Your task to perform on an android device: set default search engine in the chrome app Image 0: 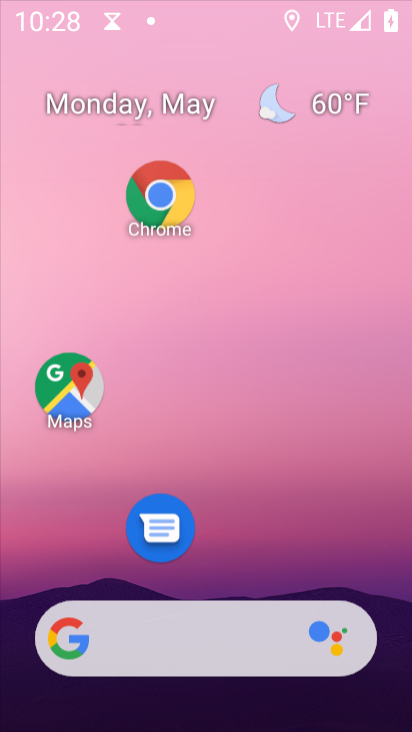
Step 0: drag from (182, 22) to (409, 15)
Your task to perform on an android device: set default search engine in the chrome app Image 1: 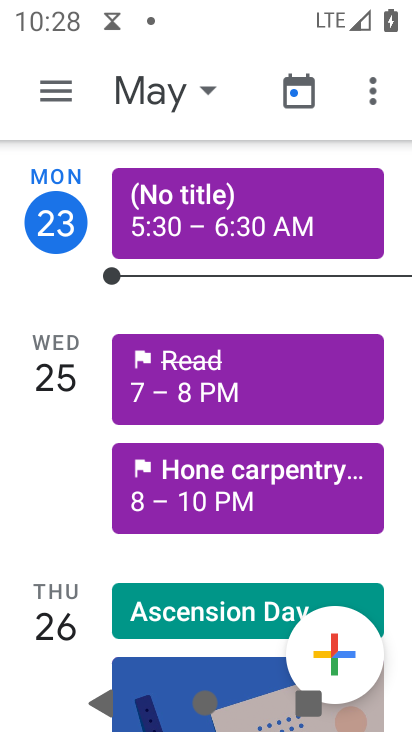
Step 1: press home button
Your task to perform on an android device: set default search engine in the chrome app Image 2: 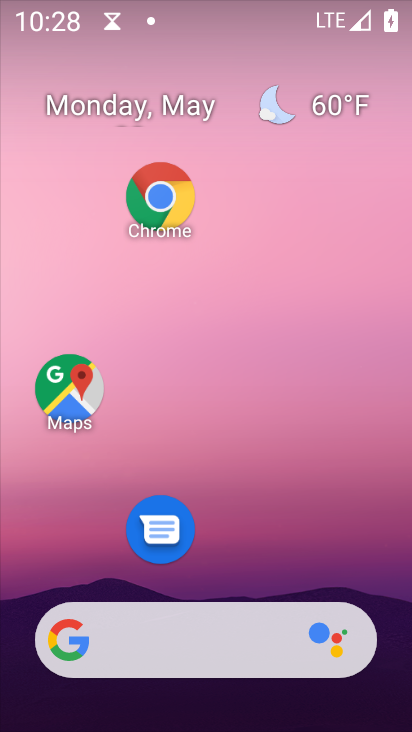
Step 2: drag from (250, 560) to (208, 228)
Your task to perform on an android device: set default search engine in the chrome app Image 3: 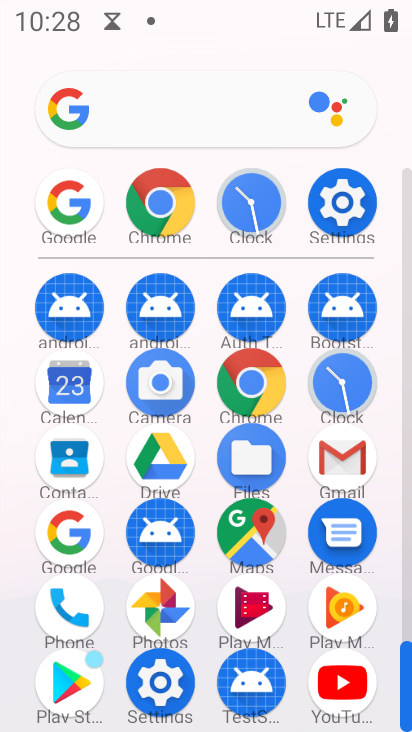
Step 3: click (335, 394)
Your task to perform on an android device: set default search engine in the chrome app Image 4: 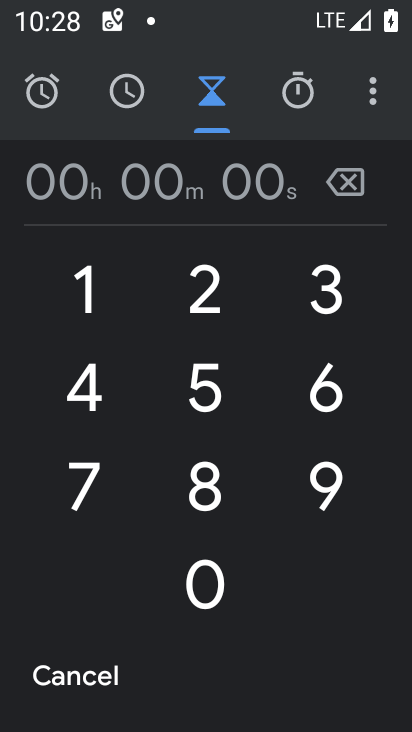
Step 4: click (210, 300)
Your task to perform on an android device: set default search engine in the chrome app Image 5: 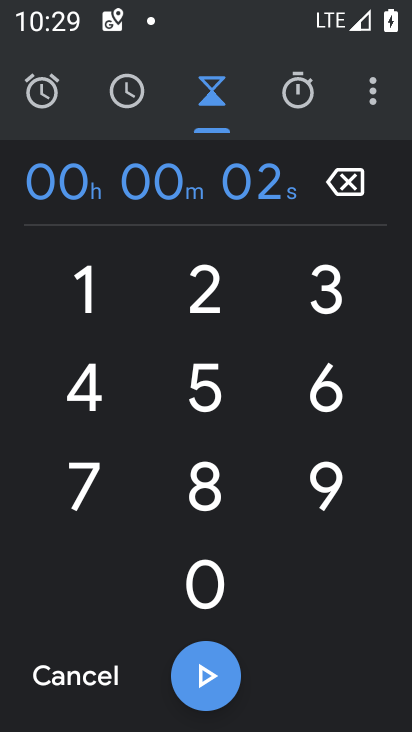
Step 5: click (203, 598)
Your task to perform on an android device: set default search engine in the chrome app Image 6: 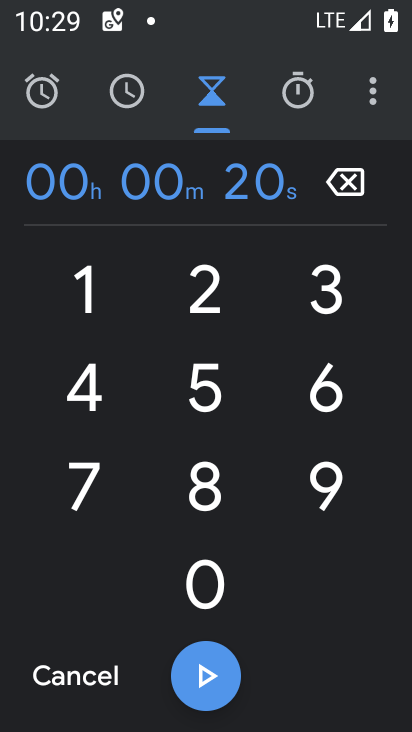
Step 6: click (200, 299)
Your task to perform on an android device: set default search engine in the chrome app Image 7: 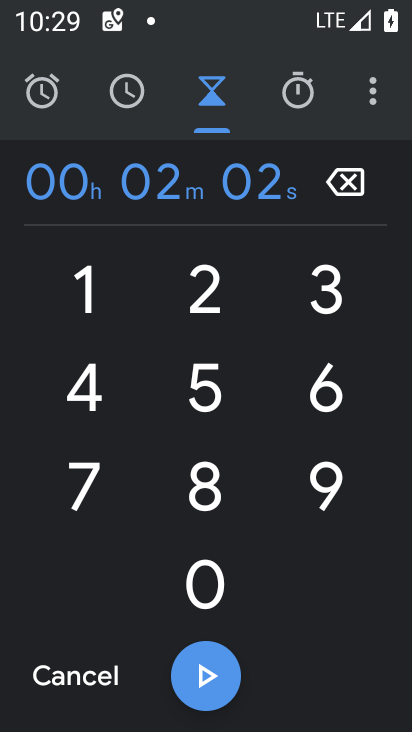
Step 7: click (213, 609)
Your task to perform on an android device: set default search engine in the chrome app Image 8: 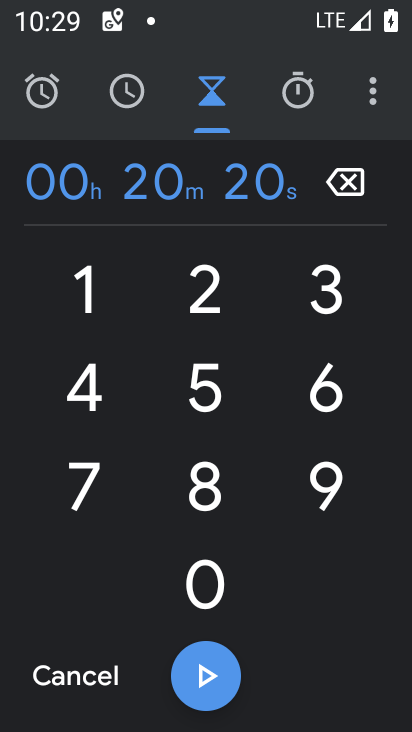
Step 8: click (192, 693)
Your task to perform on an android device: set default search engine in the chrome app Image 9: 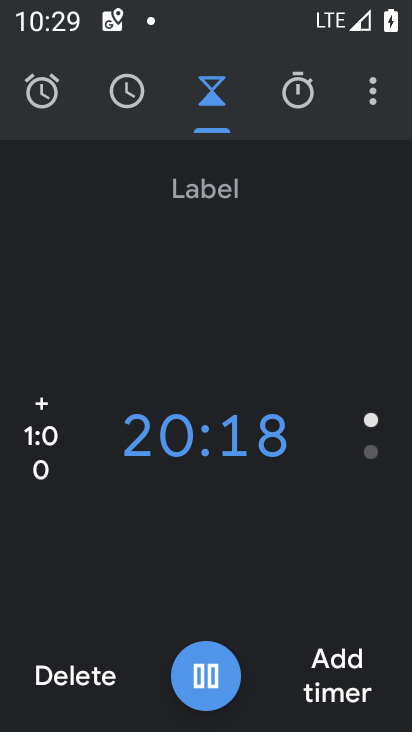
Step 9: click (337, 659)
Your task to perform on an android device: set default search engine in the chrome app Image 10: 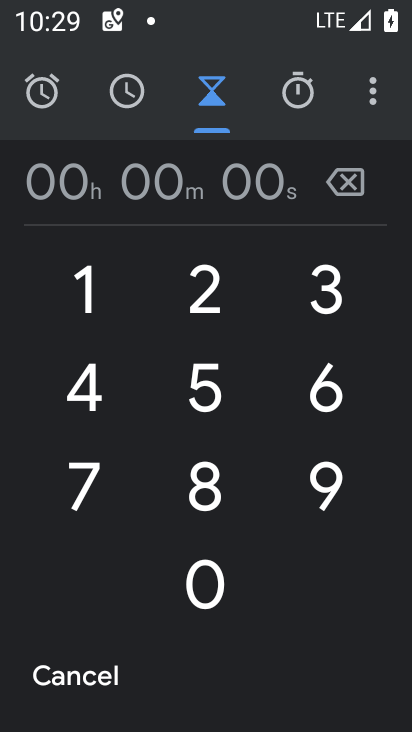
Step 10: task complete